Your task to perform on an android device: Open Google Chrome and open the bookmarks view Image 0: 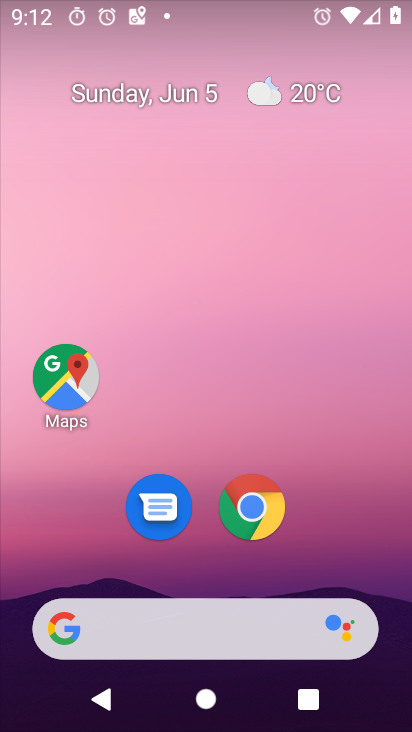
Step 0: drag from (318, 515) to (194, 42)
Your task to perform on an android device: Open Google Chrome and open the bookmarks view Image 1: 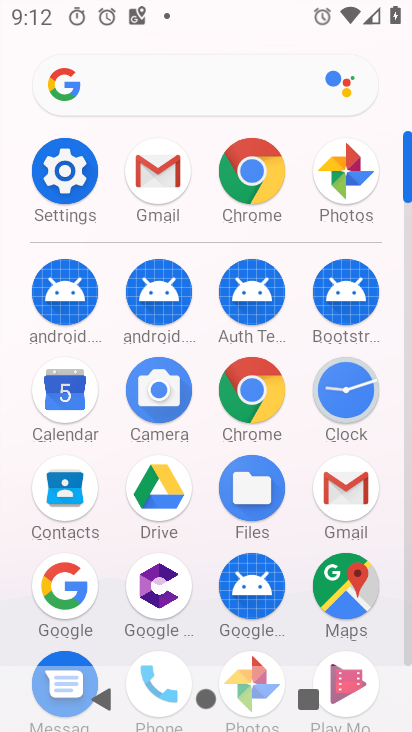
Step 1: click (247, 387)
Your task to perform on an android device: Open Google Chrome and open the bookmarks view Image 2: 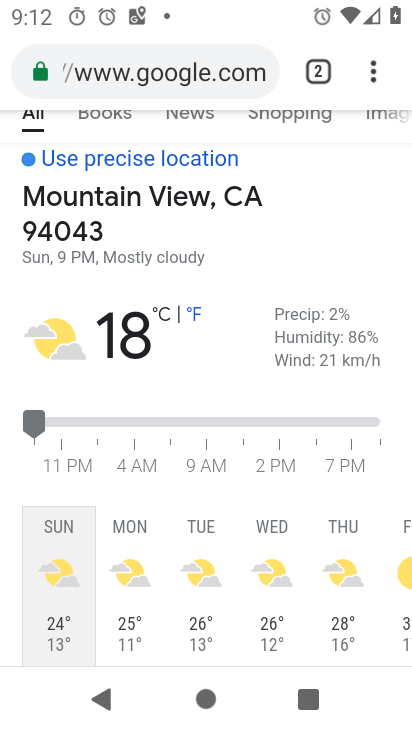
Step 2: task complete